Your task to perform on an android device: Search for sushi restaurants on Maps Image 0: 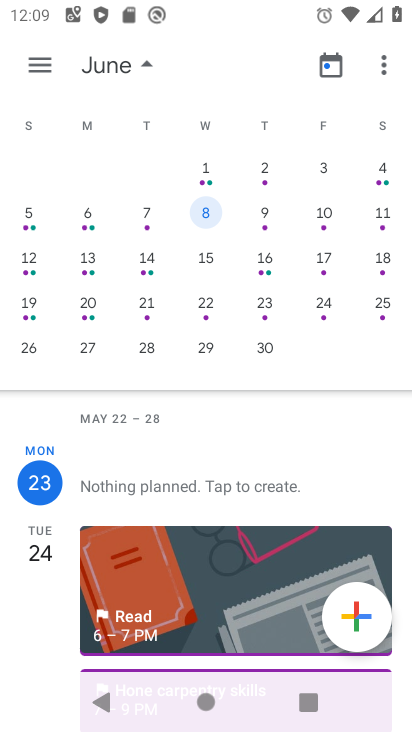
Step 0: press home button
Your task to perform on an android device: Search for sushi restaurants on Maps Image 1: 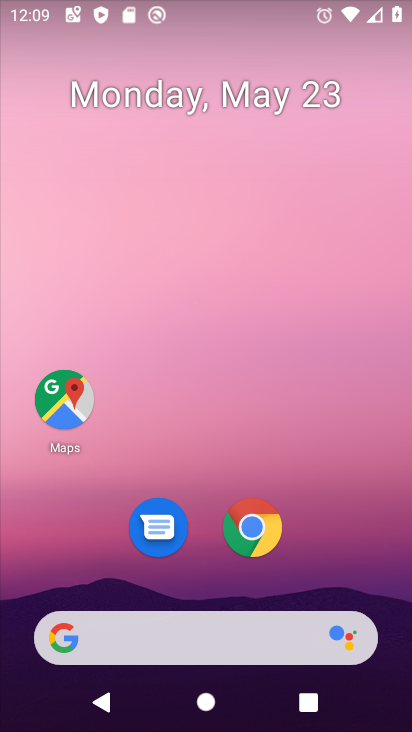
Step 1: drag from (352, 547) to (323, 185)
Your task to perform on an android device: Search for sushi restaurants on Maps Image 2: 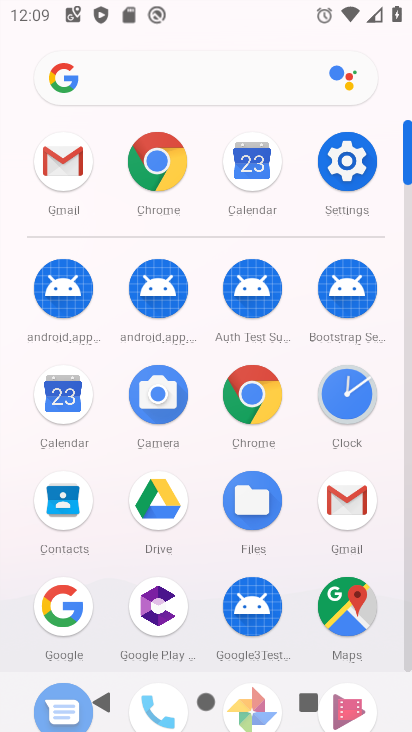
Step 2: click (361, 648)
Your task to perform on an android device: Search for sushi restaurants on Maps Image 3: 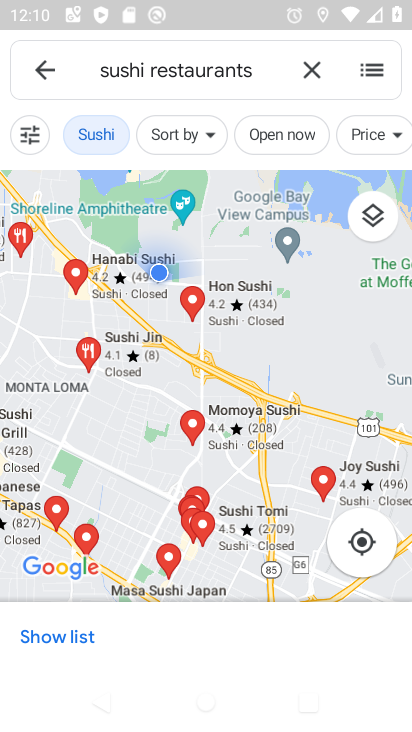
Step 3: task complete